Your task to perform on an android device: Open the stopwatch Image 0: 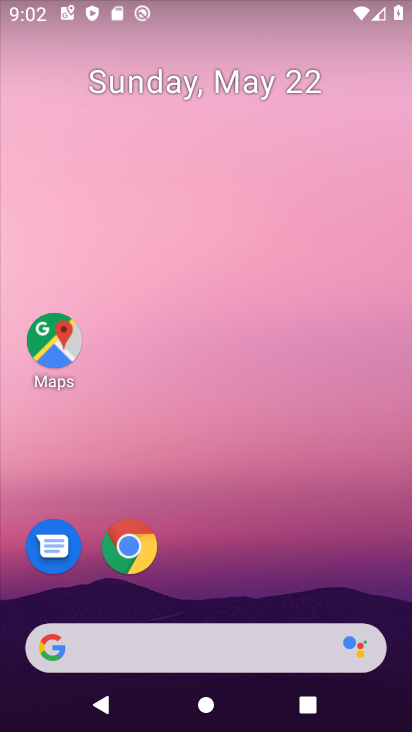
Step 0: drag from (194, 537) to (296, 50)
Your task to perform on an android device: Open the stopwatch Image 1: 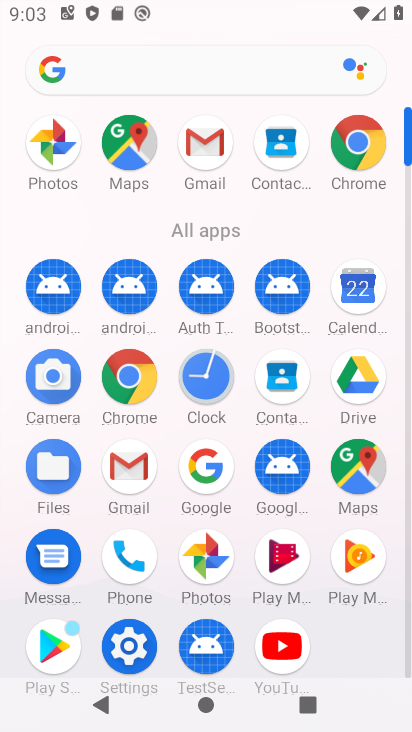
Step 1: click (191, 385)
Your task to perform on an android device: Open the stopwatch Image 2: 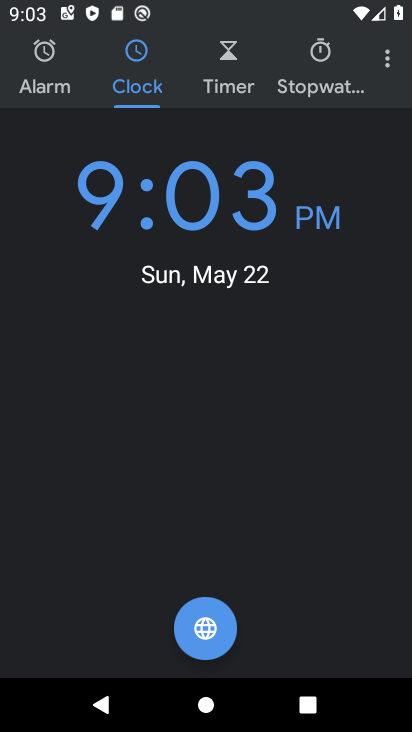
Step 2: click (334, 79)
Your task to perform on an android device: Open the stopwatch Image 3: 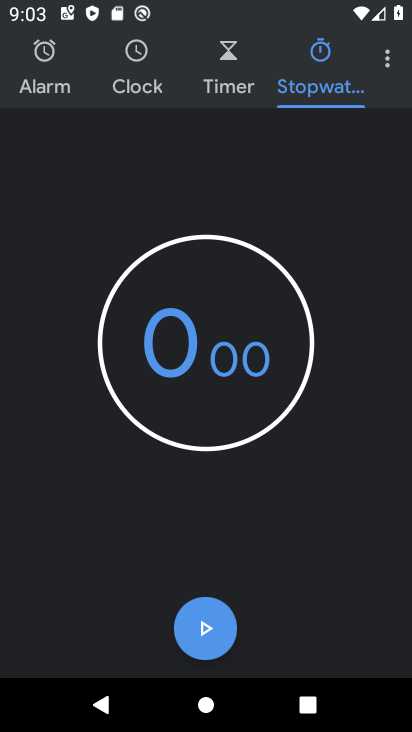
Step 3: task complete